Your task to perform on an android device: visit the assistant section in the google photos Image 0: 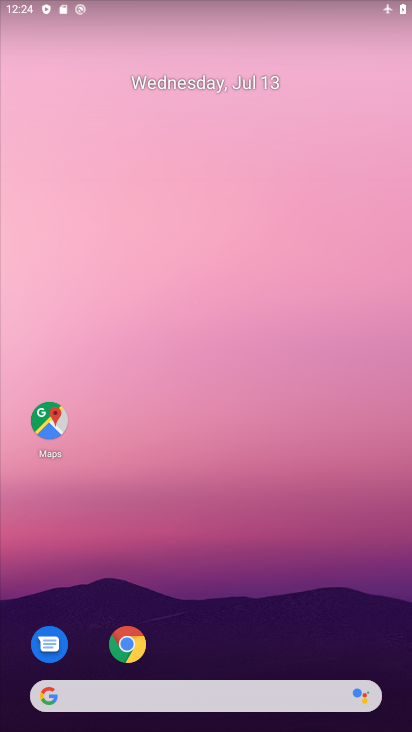
Step 0: drag from (313, 620) to (244, 160)
Your task to perform on an android device: visit the assistant section in the google photos Image 1: 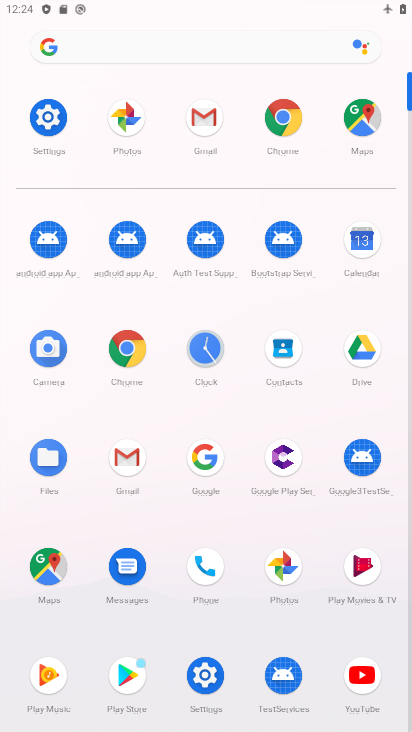
Step 1: click (291, 554)
Your task to perform on an android device: visit the assistant section in the google photos Image 2: 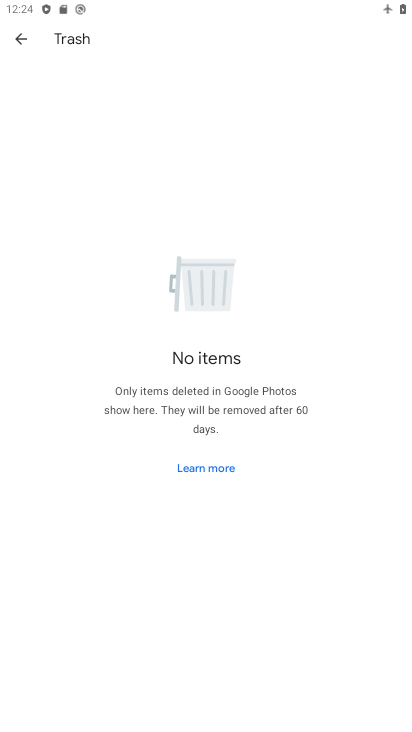
Step 2: click (28, 45)
Your task to perform on an android device: visit the assistant section in the google photos Image 3: 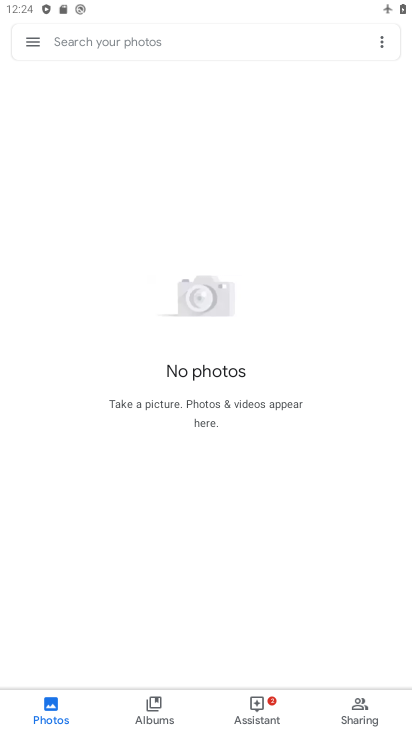
Step 3: click (28, 45)
Your task to perform on an android device: visit the assistant section in the google photos Image 4: 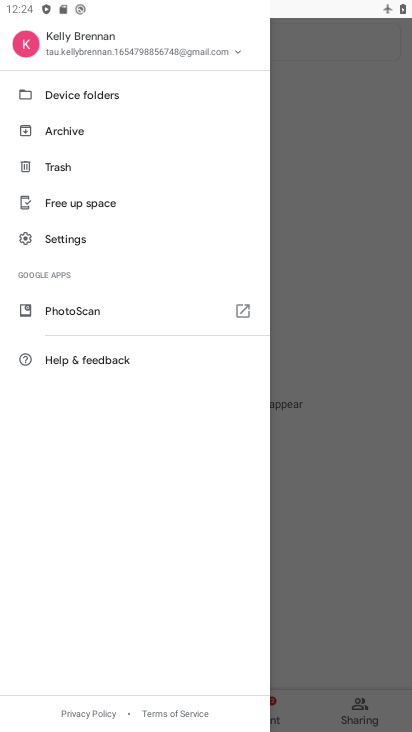
Step 4: click (58, 167)
Your task to perform on an android device: visit the assistant section in the google photos Image 5: 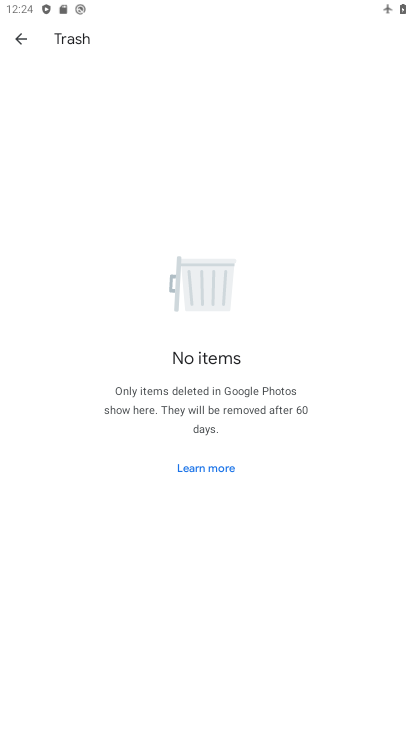
Step 5: click (18, 39)
Your task to perform on an android device: visit the assistant section in the google photos Image 6: 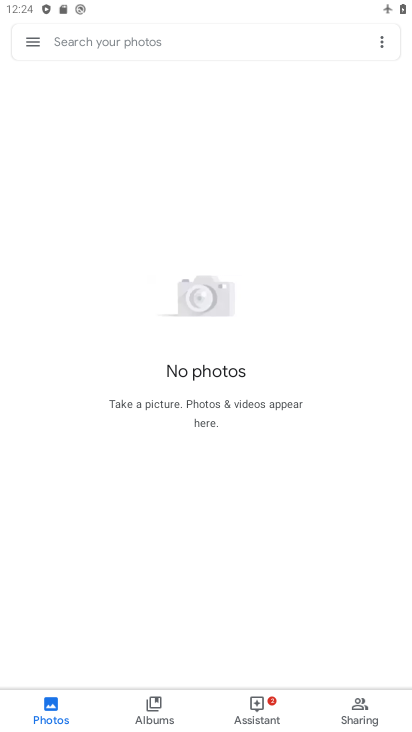
Step 6: click (18, 39)
Your task to perform on an android device: visit the assistant section in the google photos Image 7: 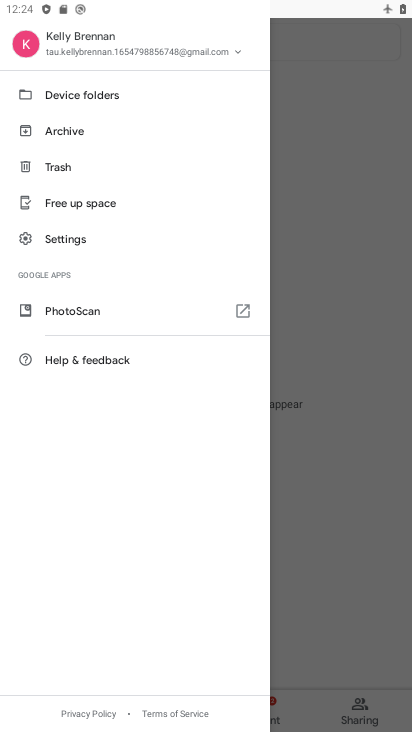
Step 7: click (338, 284)
Your task to perform on an android device: visit the assistant section in the google photos Image 8: 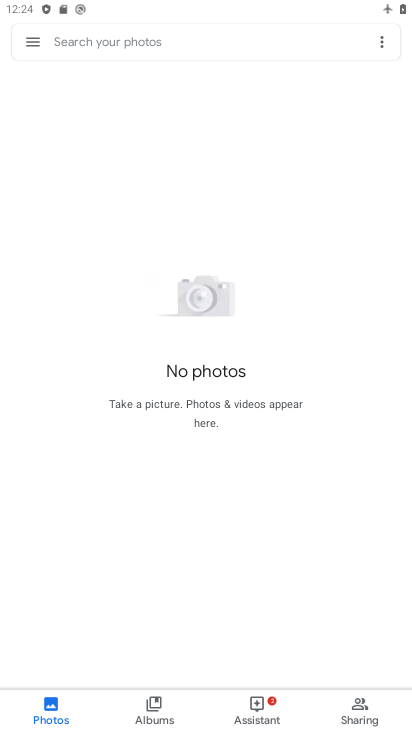
Step 8: click (268, 708)
Your task to perform on an android device: visit the assistant section in the google photos Image 9: 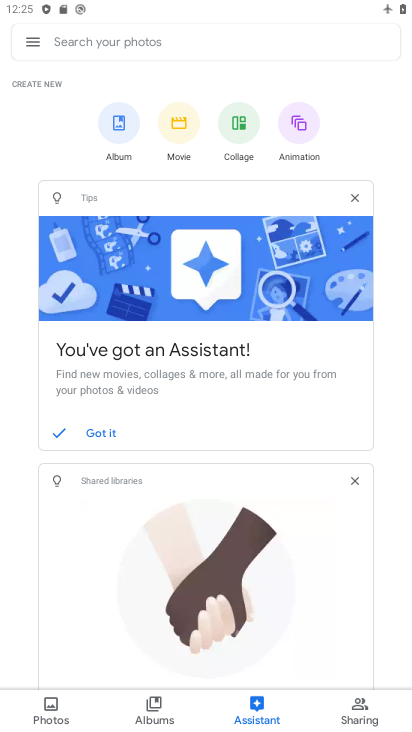
Step 9: task complete